Your task to perform on an android device: toggle show notifications on the lock screen Image 0: 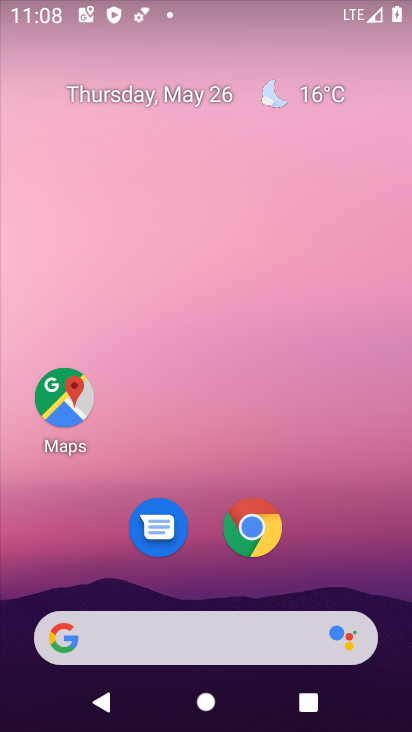
Step 0: drag from (314, 478) to (210, 15)
Your task to perform on an android device: toggle show notifications on the lock screen Image 1: 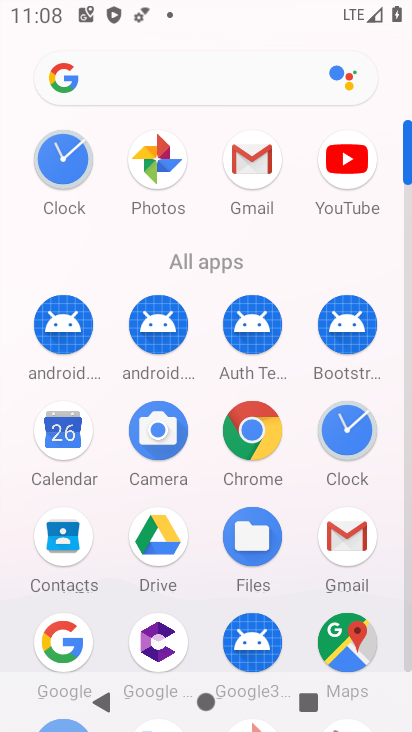
Step 1: drag from (116, 426) to (120, 67)
Your task to perform on an android device: toggle show notifications on the lock screen Image 2: 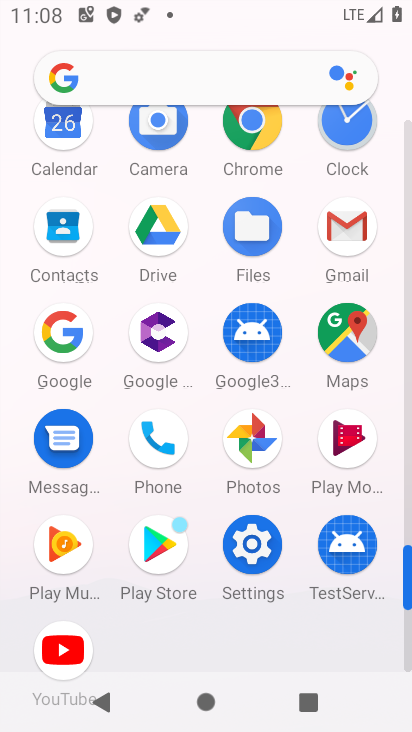
Step 2: click (259, 547)
Your task to perform on an android device: toggle show notifications on the lock screen Image 3: 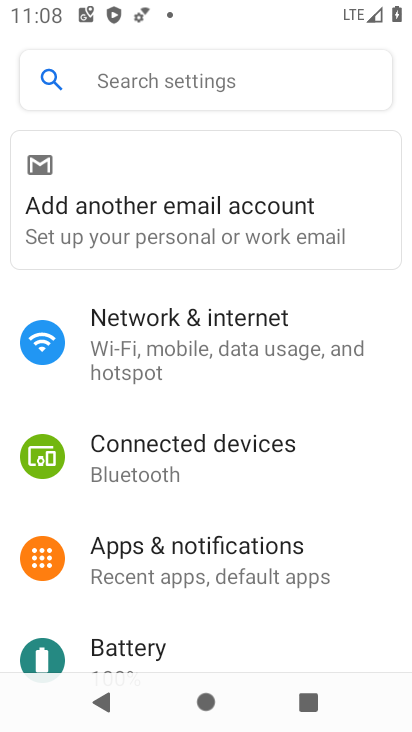
Step 3: click (174, 568)
Your task to perform on an android device: toggle show notifications on the lock screen Image 4: 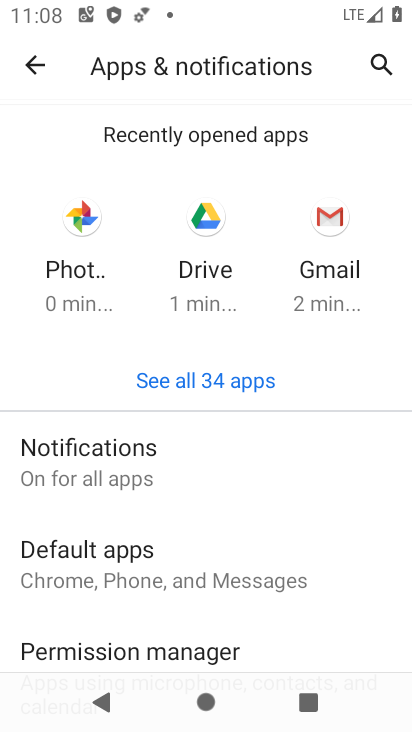
Step 4: click (76, 474)
Your task to perform on an android device: toggle show notifications on the lock screen Image 5: 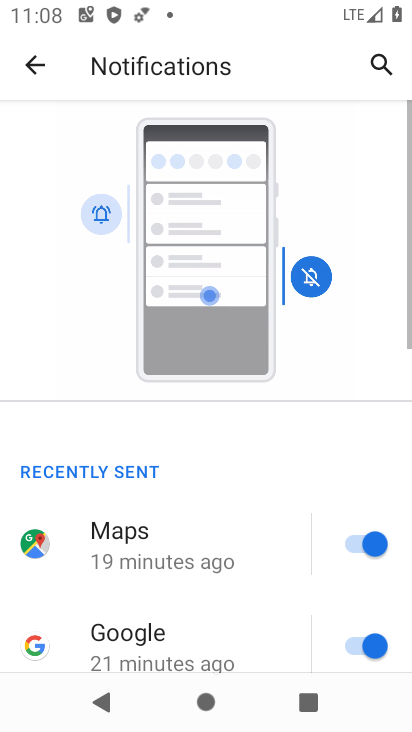
Step 5: drag from (152, 633) to (88, 0)
Your task to perform on an android device: toggle show notifications on the lock screen Image 6: 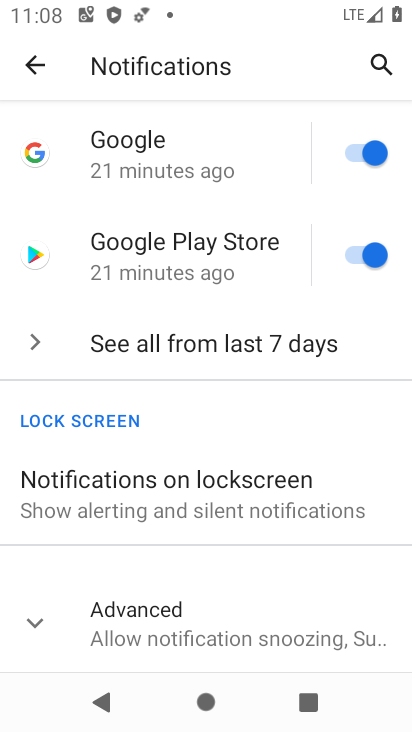
Step 6: drag from (184, 548) to (181, 6)
Your task to perform on an android device: toggle show notifications on the lock screen Image 7: 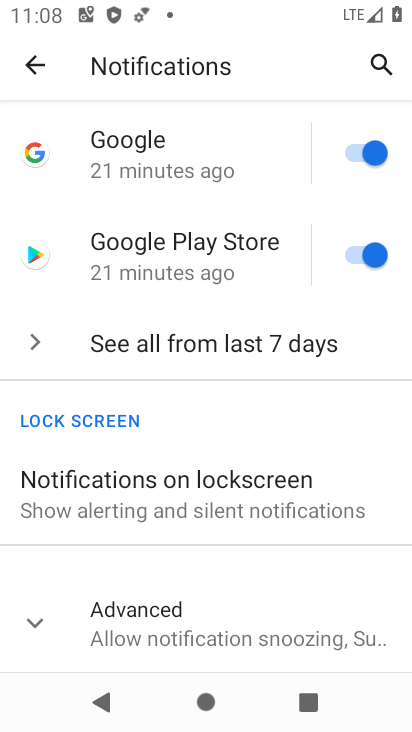
Step 7: click (167, 492)
Your task to perform on an android device: toggle show notifications on the lock screen Image 8: 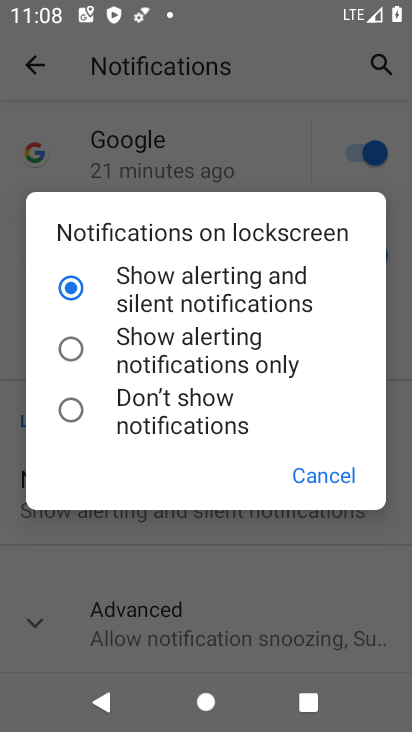
Step 8: click (124, 355)
Your task to perform on an android device: toggle show notifications on the lock screen Image 9: 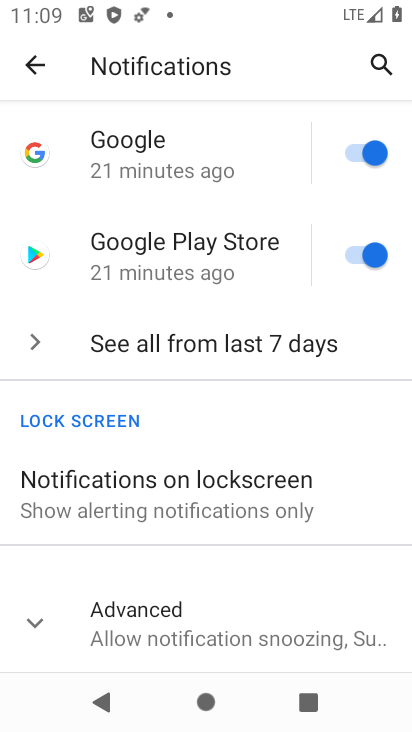
Step 9: task complete